Your task to perform on an android device: set the stopwatch Image 0: 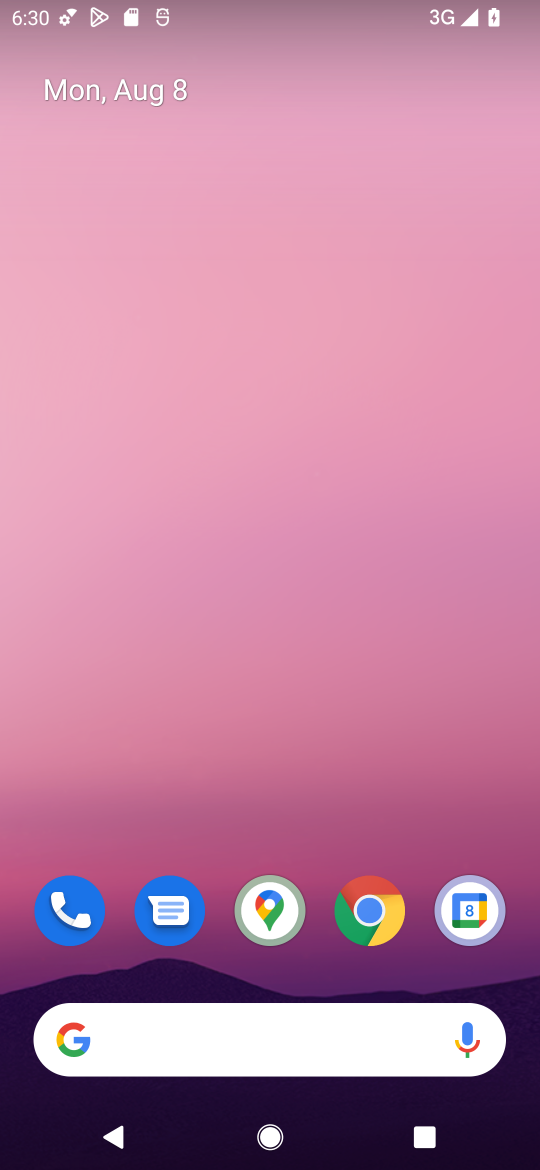
Step 0: drag from (465, 813) to (404, 334)
Your task to perform on an android device: set the stopwatch Image 1: 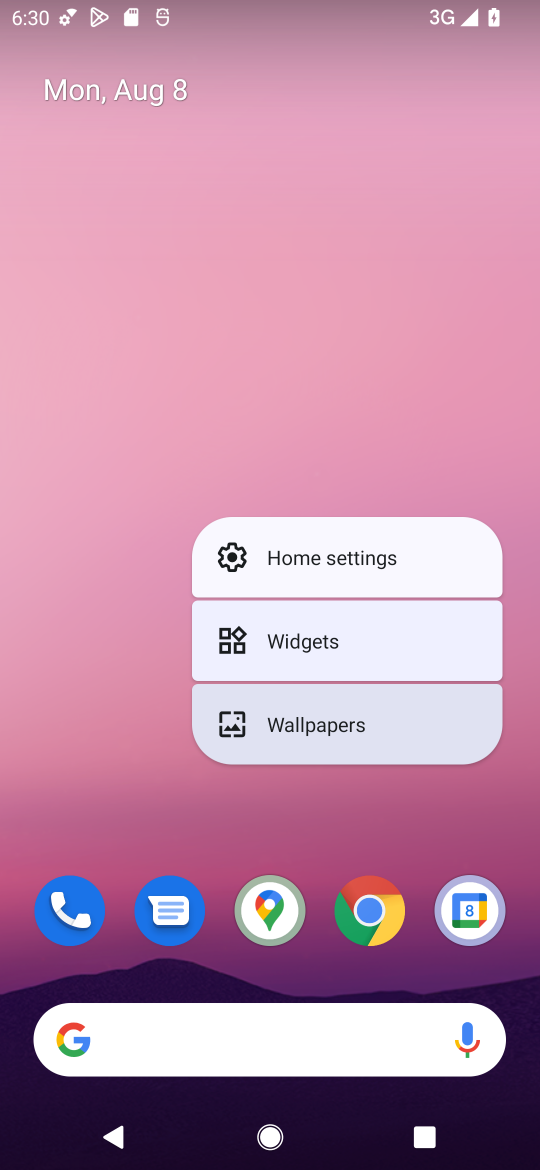
Step 1: click (89, 762)
Your task to perform on an android device: set the stopwatch Image 2: 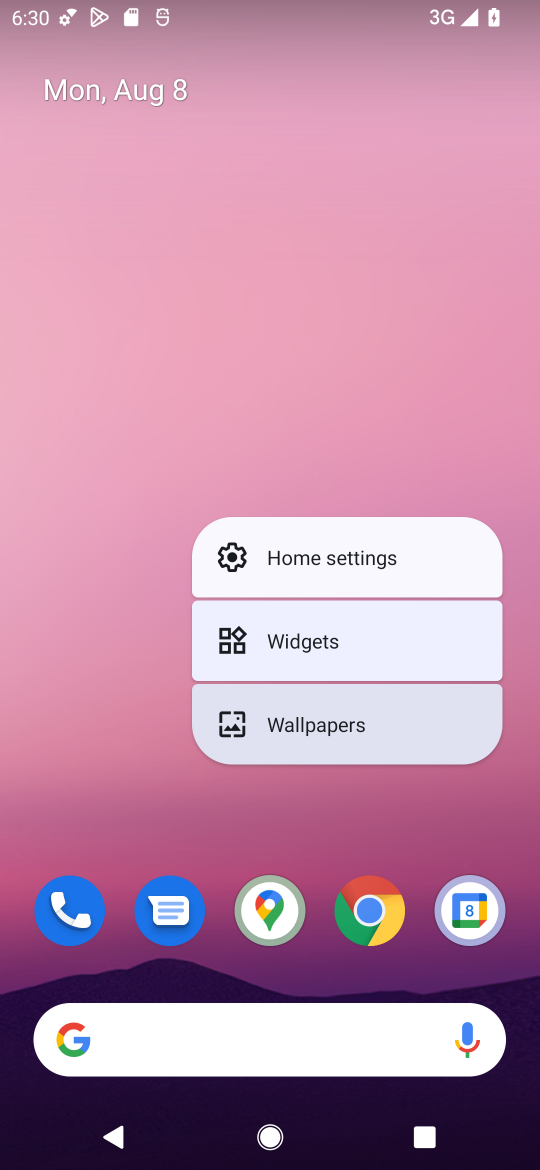
Step 2: drag from (89, 762) to (144, 342)
Your task to perform on an android device: set the stopwatch Image 3: 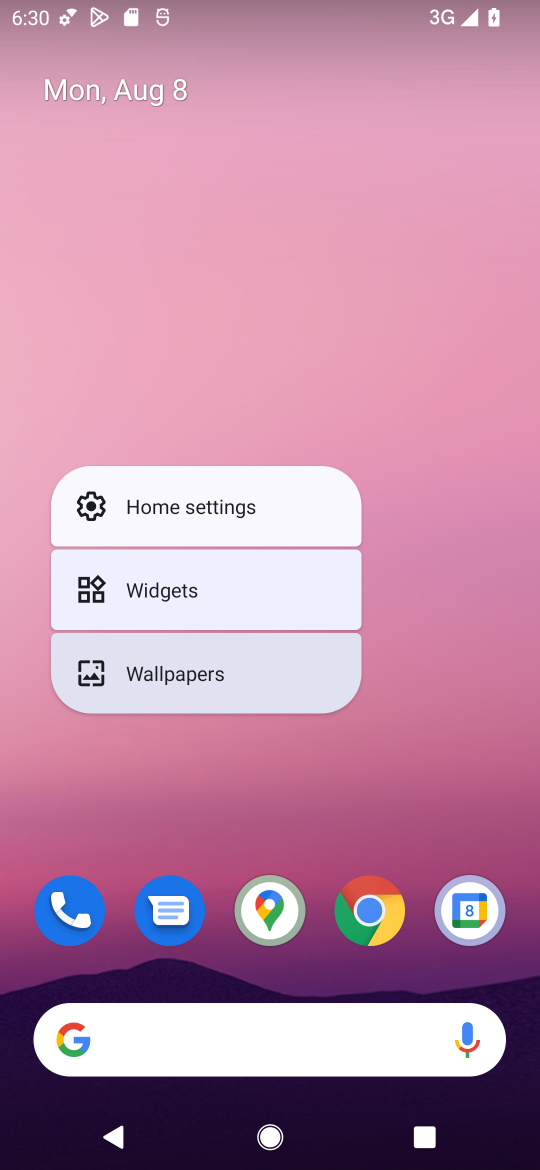
Step 3: click (426, 821)
Your task to perform on an android device: set the stopwatch Image 4: 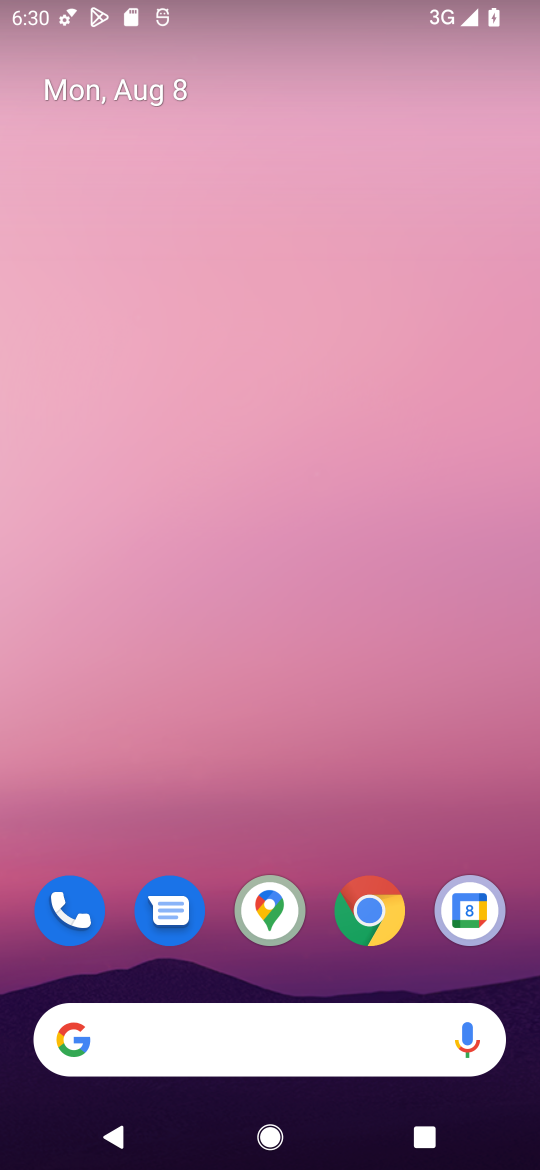
Step 4: drag from (426, 821) to (368, 336)
Your task to perform on an android device: set the stopwatch Image 5: 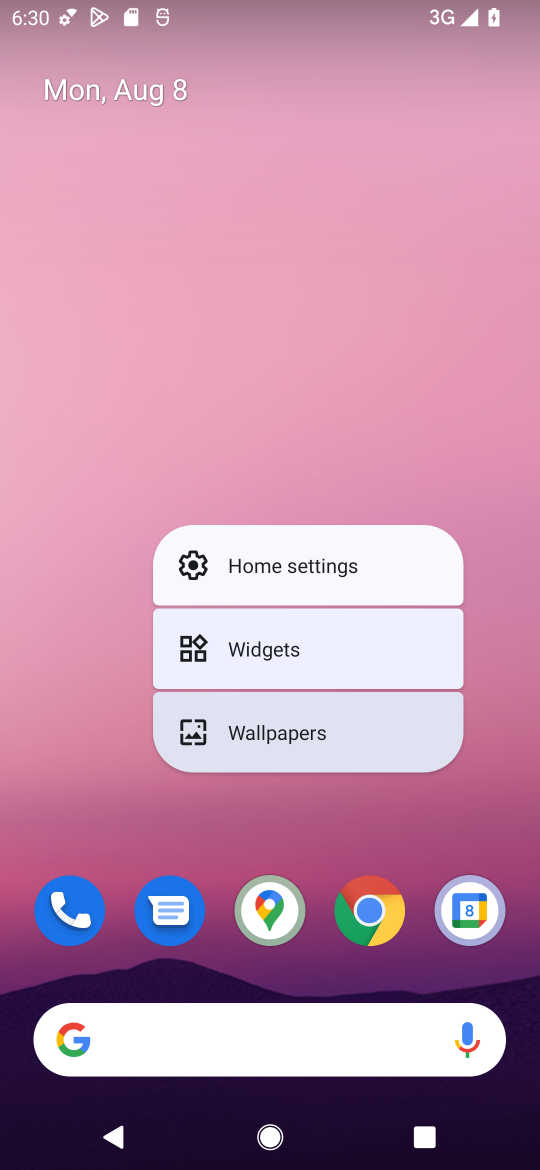
Step 5: click (323, 185)
Your task to perform on an android device: set the stopwatch Image 6: 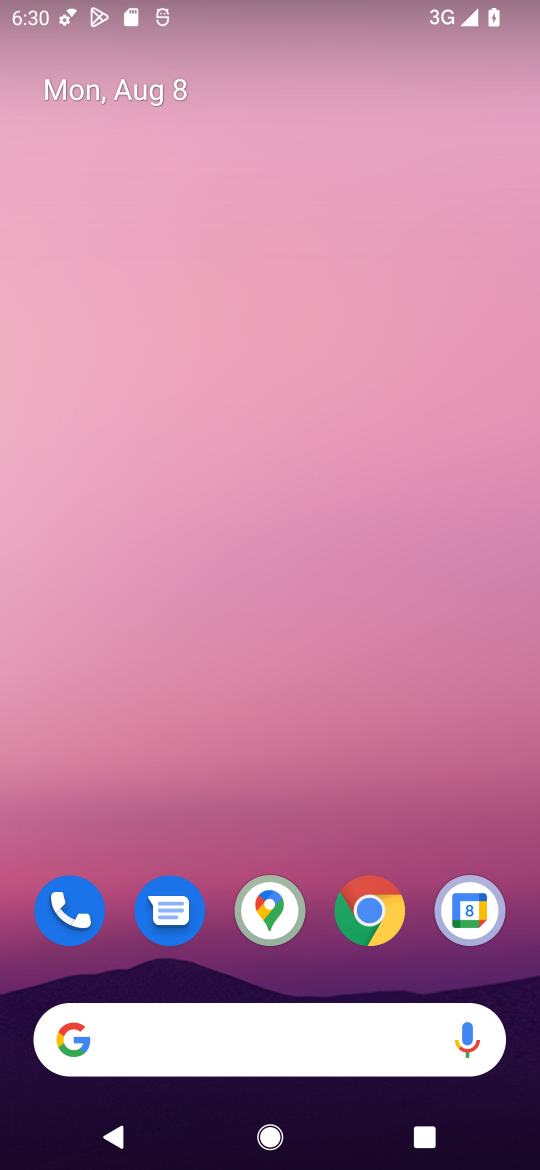
Step 6: drag from (128, 838) to (209, 261)
Your task to perform on an android device: set the stopwatch Image 7: 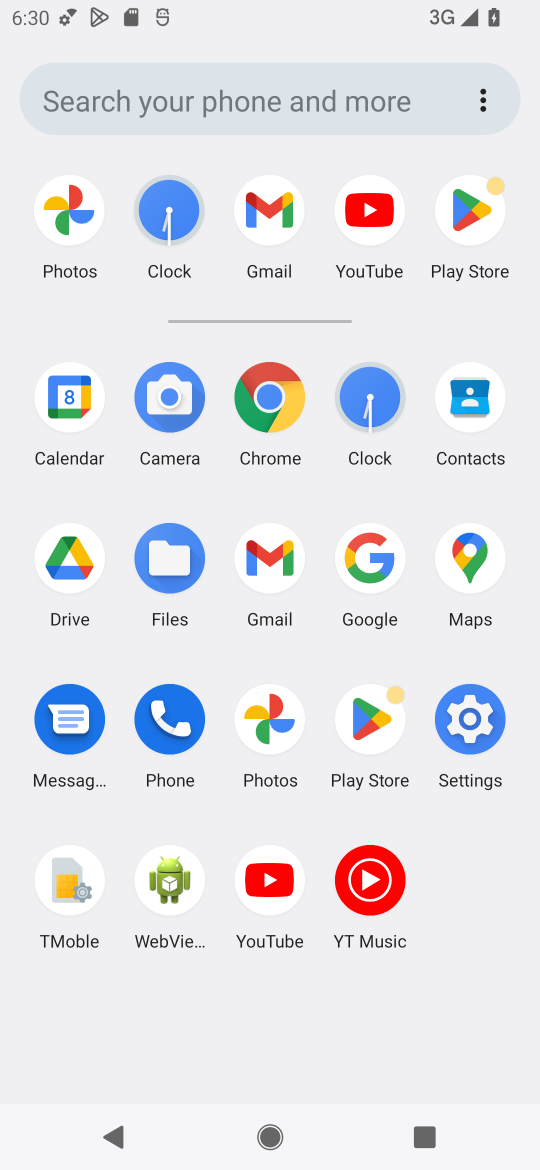
Step 7: click (463, 723)
Your task to perform on an android device: set the stopwatch Image 8: 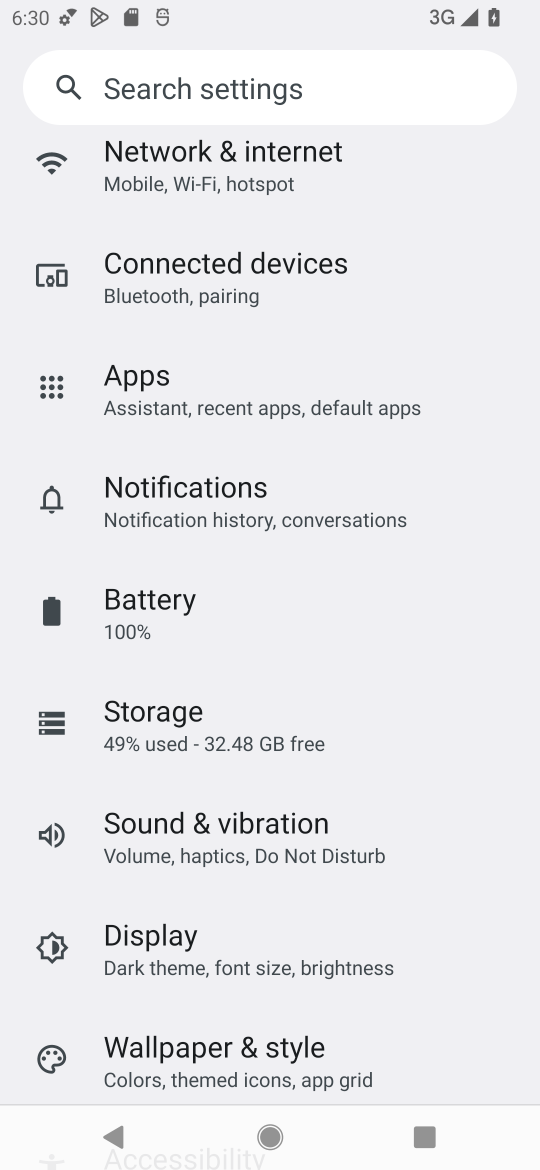
Step 8: click (176, 1138)
Your task to perform on an android device: set the stopwatch Image 9: 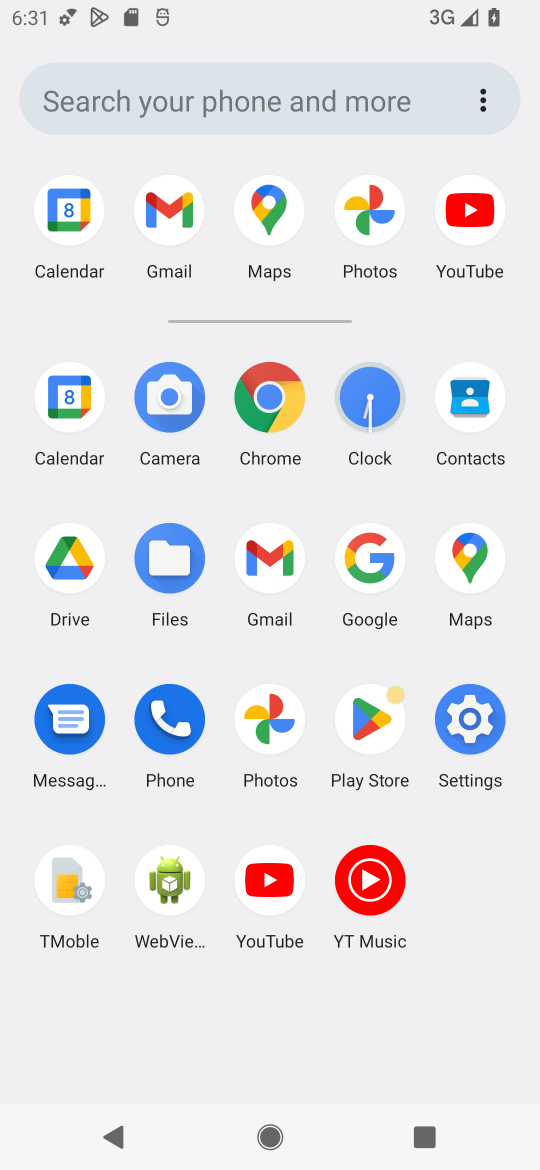
Step 9: click (370, 416)
Your task to perform on an android device: set the stopwatch Image 10: 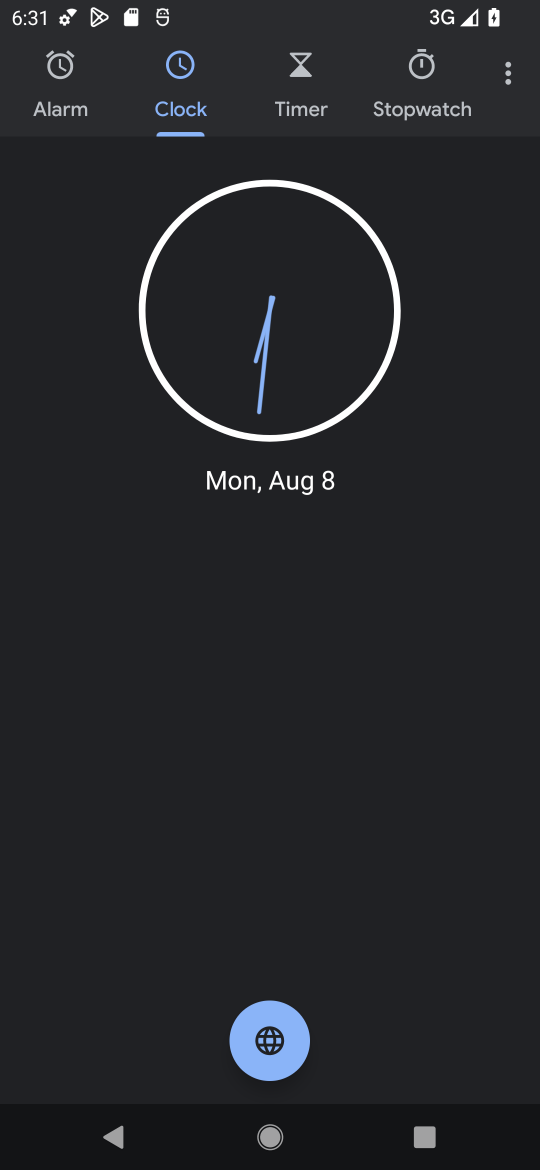
Step 10: click (413, 111)
Your task to perform on an android device: set the stopwatch Image 11: 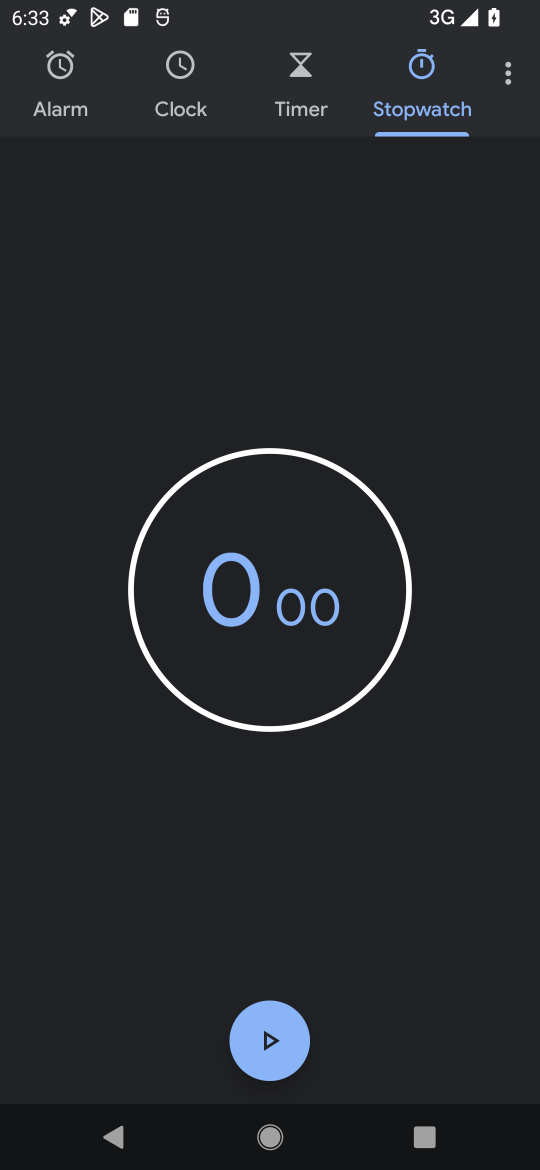
Step 11: task complete